Your task to perform on an android device: Open display settings Image 0: 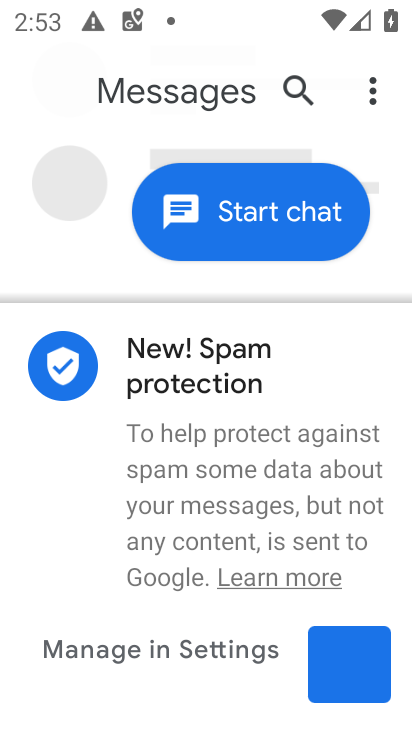
Step 0: press home button
Your task to perform on an android device: Open display settings Image 1: 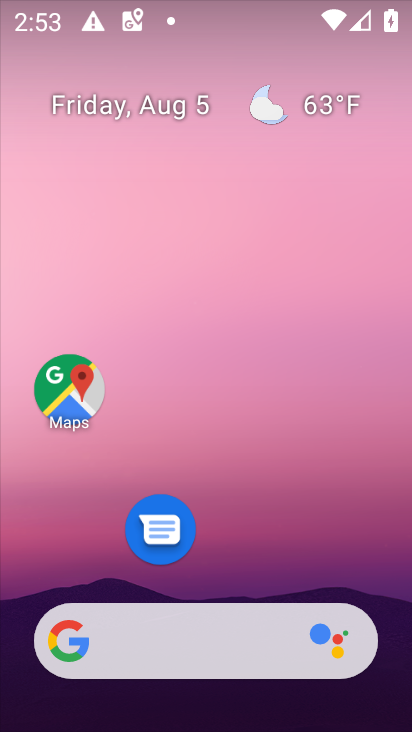
Step 1: drag from (134, 691) to (346, 72)
Your task to perform on an android device: Open display settings Image 2: 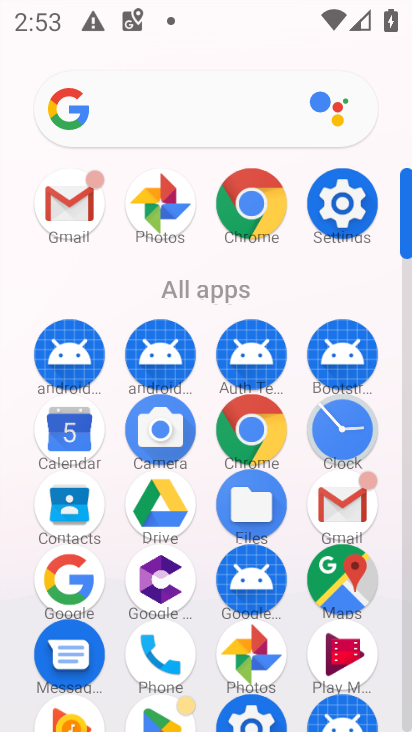
Step 2: click (351, 207)
Your task to perform on an android device: Open display settings Image 3: 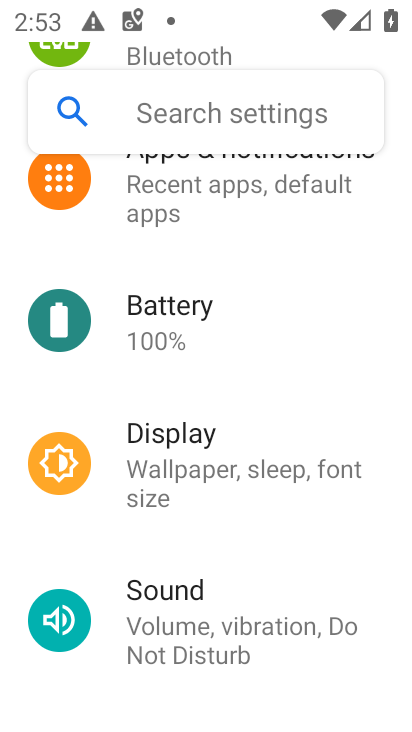
Step 3: click (201, 440)
Your task to perform on an android device: Open display settings Image 4: 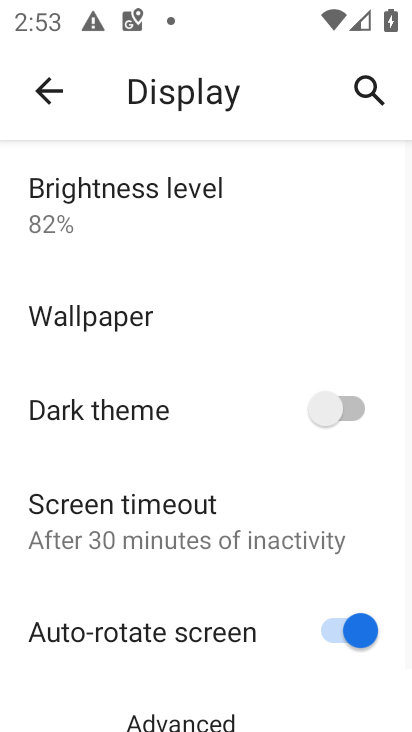
Step 4: task complete